Your task to perform on an android device: open wifi settings Image 0: 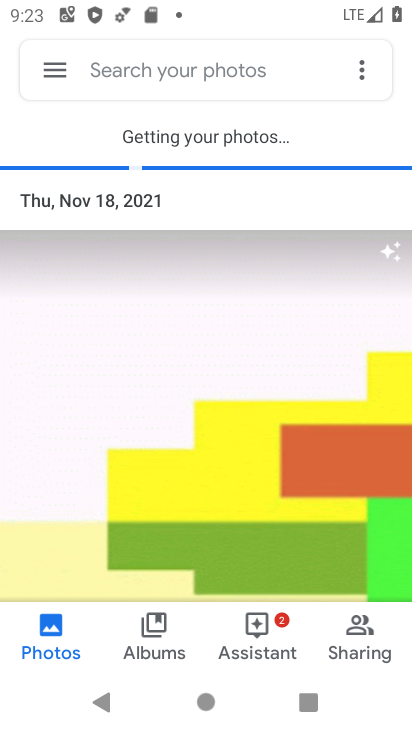
Step 0: press home button
Your task to perform on an android device: open wifi settings Image 1: 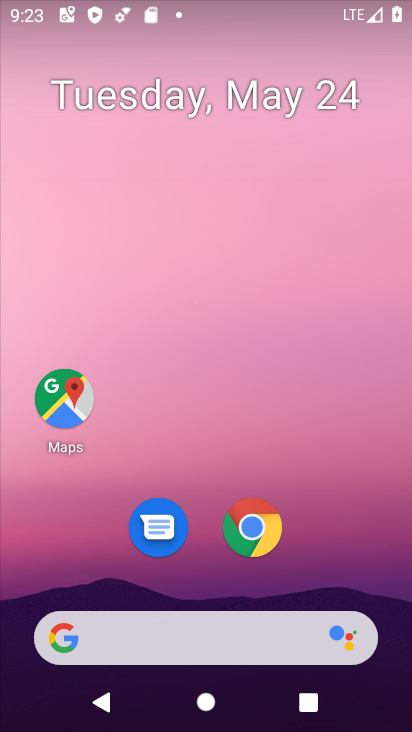
Step 1: drag from (199, 540) to (235, 46)
Your task to perform on an android device: open wifi settings Image 2: 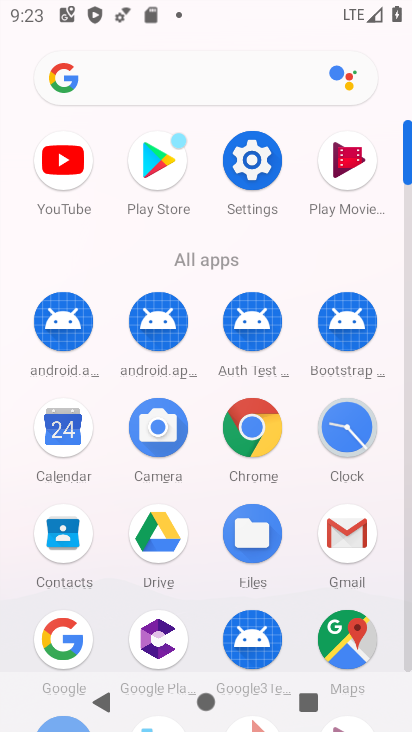
Step 2: click (251, 156)
Your task to perform on an android device: open wifi settings Image 3: 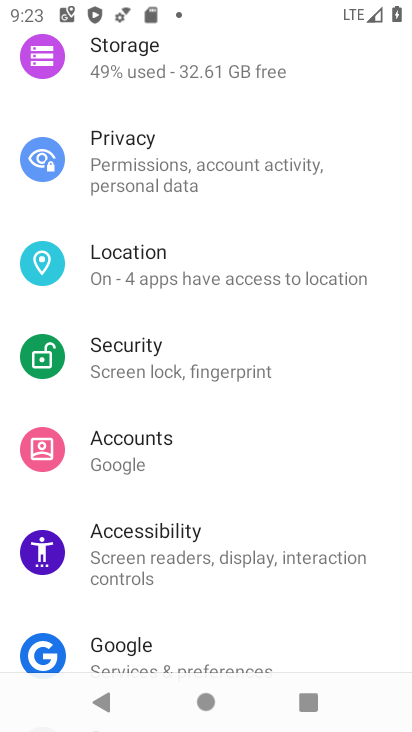
Step 3: drag from (209, 105) to (162, 711)
Your task to perform on an android device: open wifi settings Image 4: 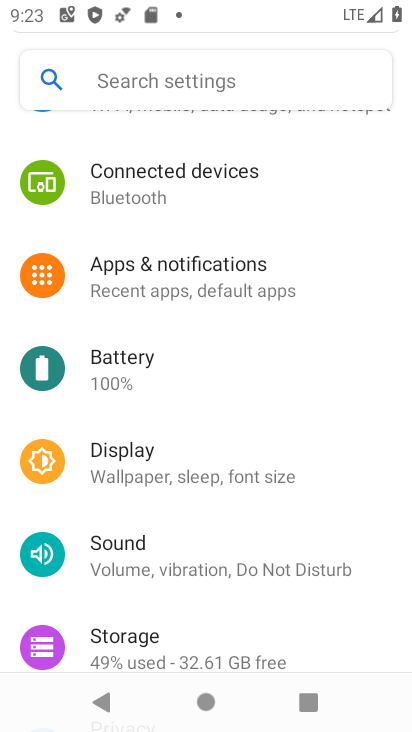
Step 4: drag from (199, 155) to (214, 708)
Your task to perform on an android device: open wifi settings Image 5: 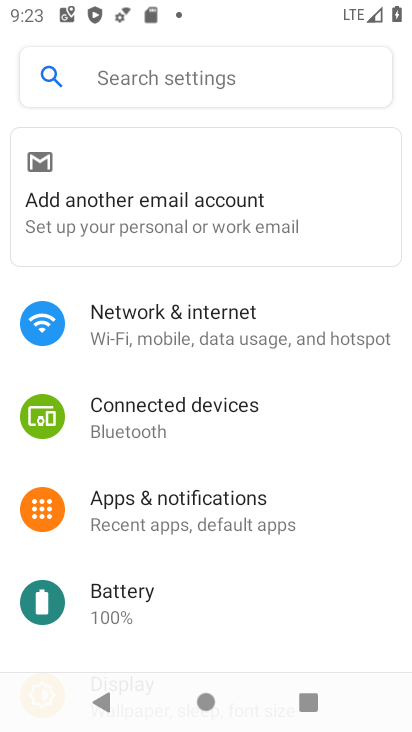
Step 5: click (224, 345)
Your task to perform on an android device: open wifi settings Image 6: 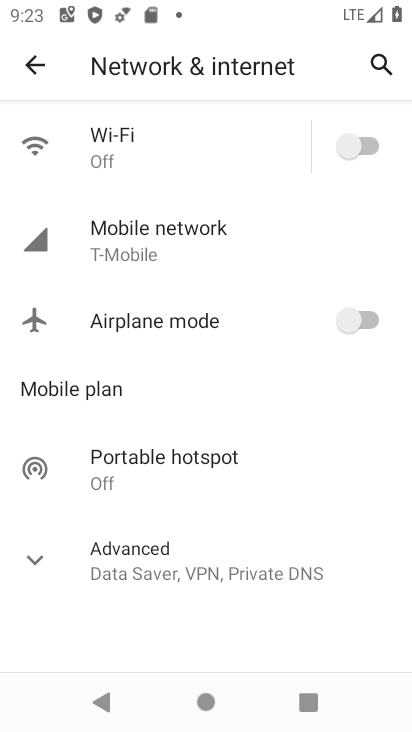
Step 6: click (224, 145)
Your task to perform on an android device: open wifi settings Image 7: 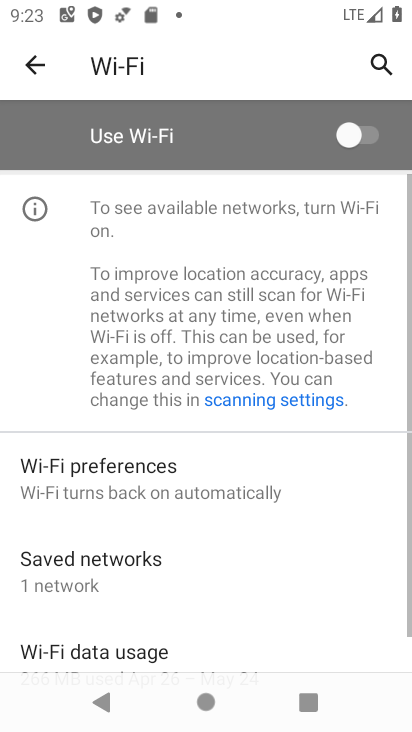
Step 7: task complete